Your task to perform on an android device: check data usage Image 0: 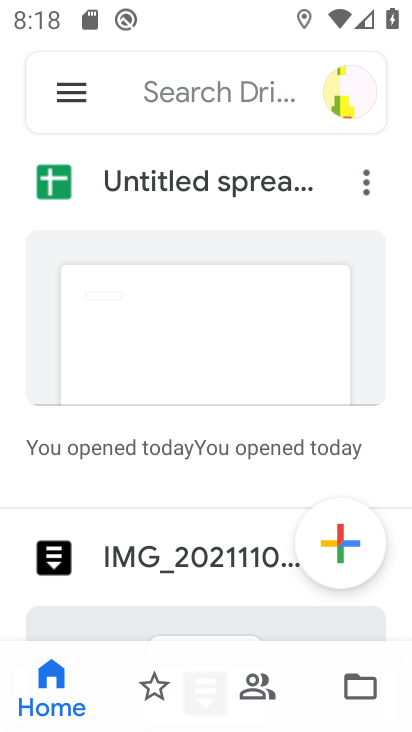
Step 0: press home button
Your task to perform on an android device: check data usage Image 1: 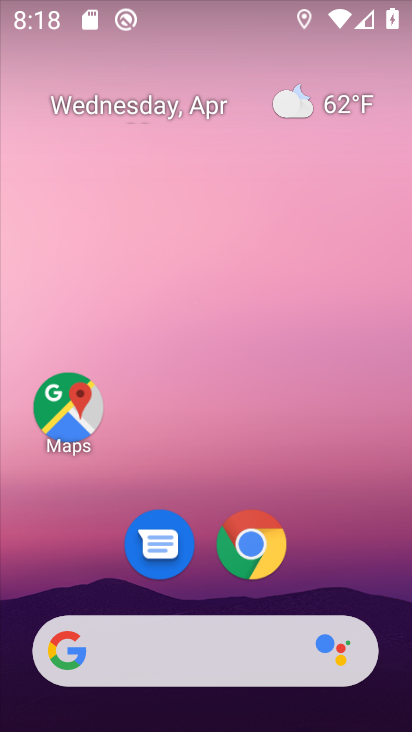
Step 1: drag from (321, 466) to (154, 228)
Your task to perform on an android device: check data usage Image 2: 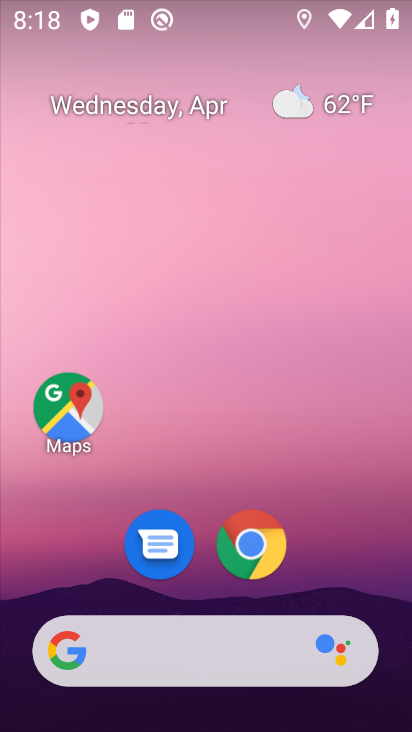
Step 2: drag from (338, 496) to (345, 131)
Your task to perform on an android device: check data usage Image 3: 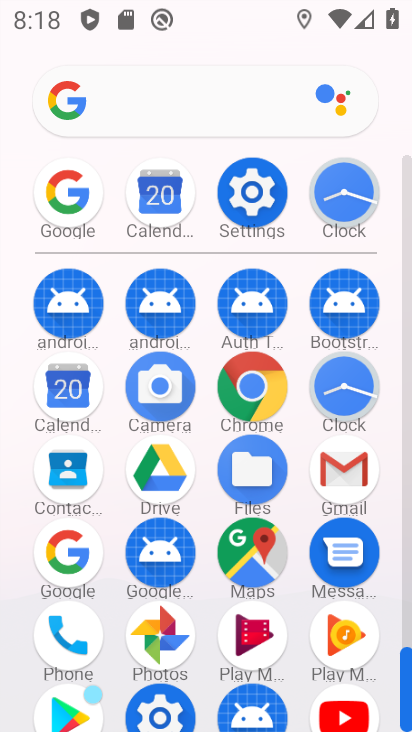
Step 3: click (254, 196)
Your task to perform on an android device: check data usage Image 4: 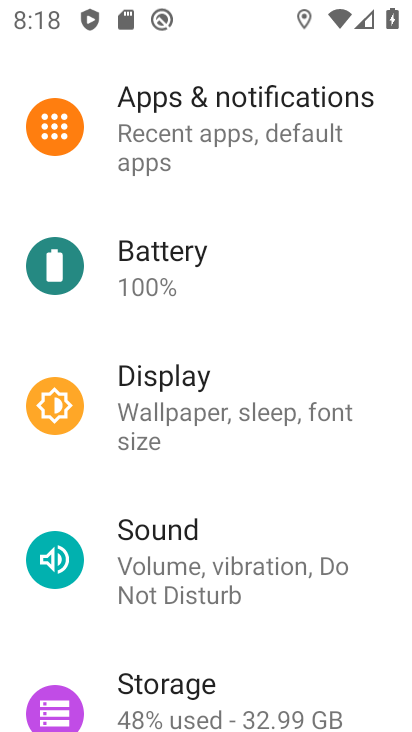
Step 4: drag from (301, 223) to (288, 638)
Your task to perform on an android device: check data usage Image 5: 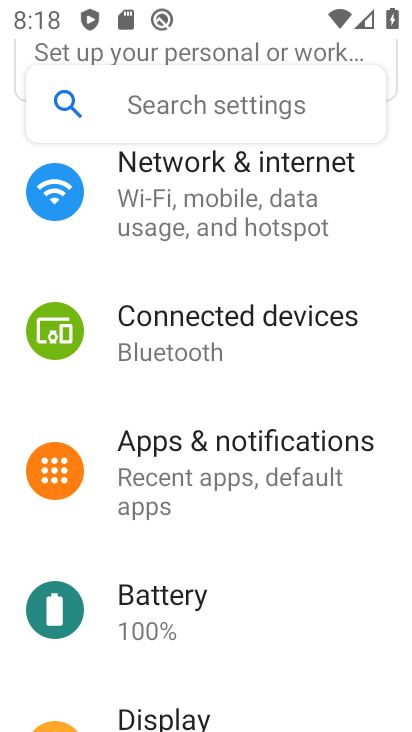
Step 5: click (263, 214)
Your task to perform on an android device: check data usage Image 6: 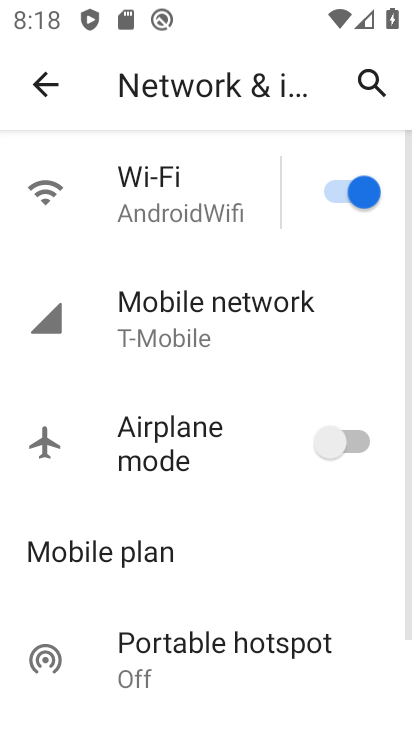
Step 6: click (189, 320)
Your task to perform on an android device: check data usage Image 7: 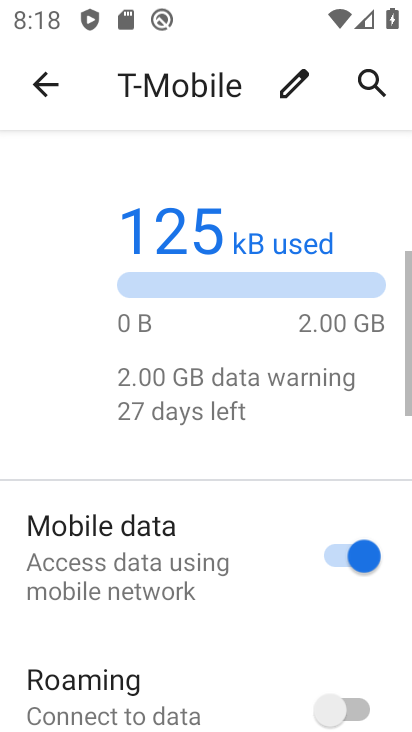
Step 7: drag from (207, 661) to (191, 337)
Your task to perform on an android device: check data usage Image 8: 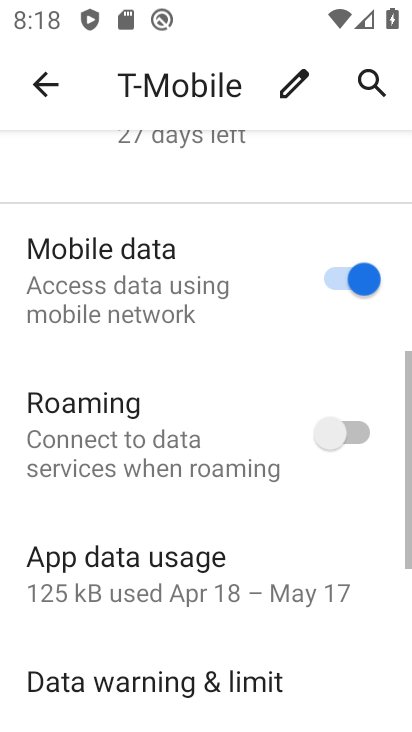
Step 8: drag from (191, 337) to (186, 642)
Your task to perform on an android device: check data usage Image 9: 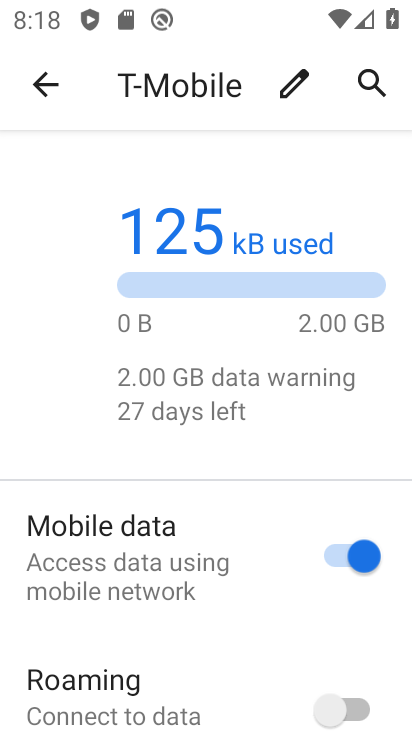
Step 9: click (47, 88)
Your task to perform on an android device: check data usage Image 10: 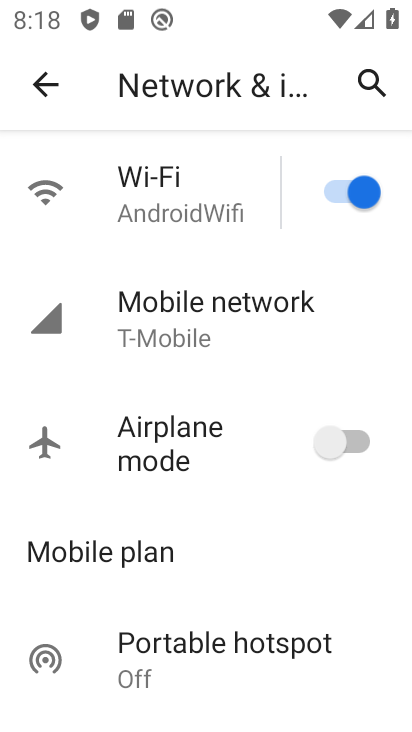
Step 10: click (151, 211)
Your task to perform on an android device: check data usage Image 11: 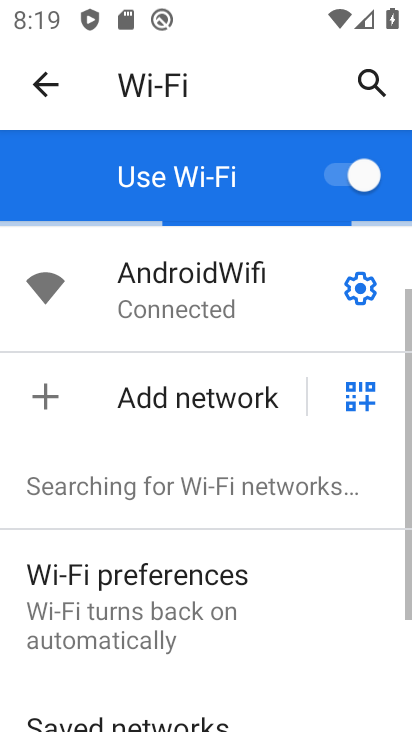
Step 11: drag from (191, 616) to (186, 232)
Your task to perform on an android device: check data usage Image 12: 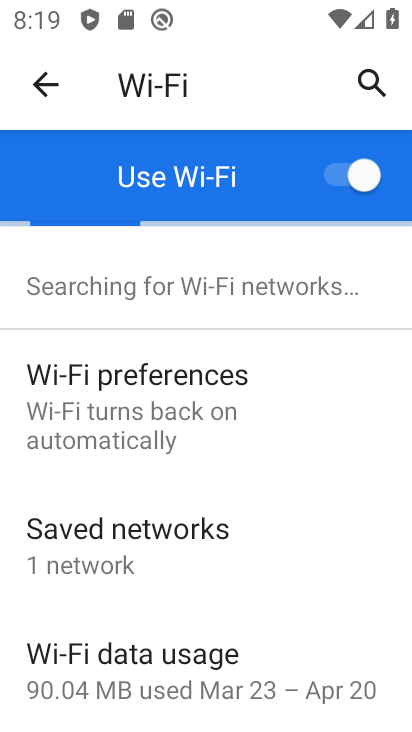
Step 12: click (175, 669)
Your task to perform on an android device: check data usage Image 13: 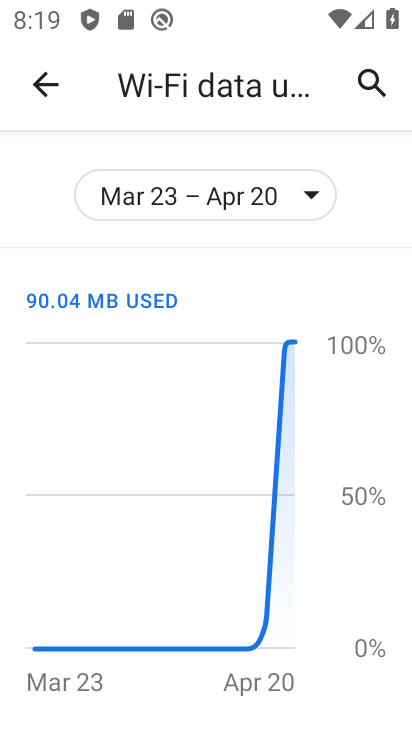
Step 13: task complete